Your task to perform on an android device: Check the news Image 0: 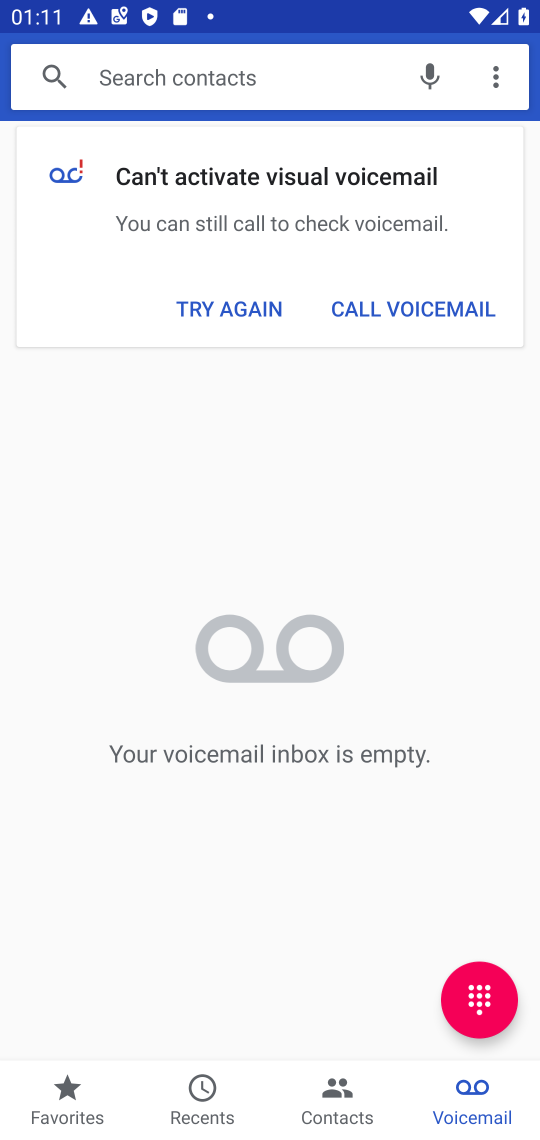
Step 0: press home button
Your task to perform on an android device: Check the news Image 1: 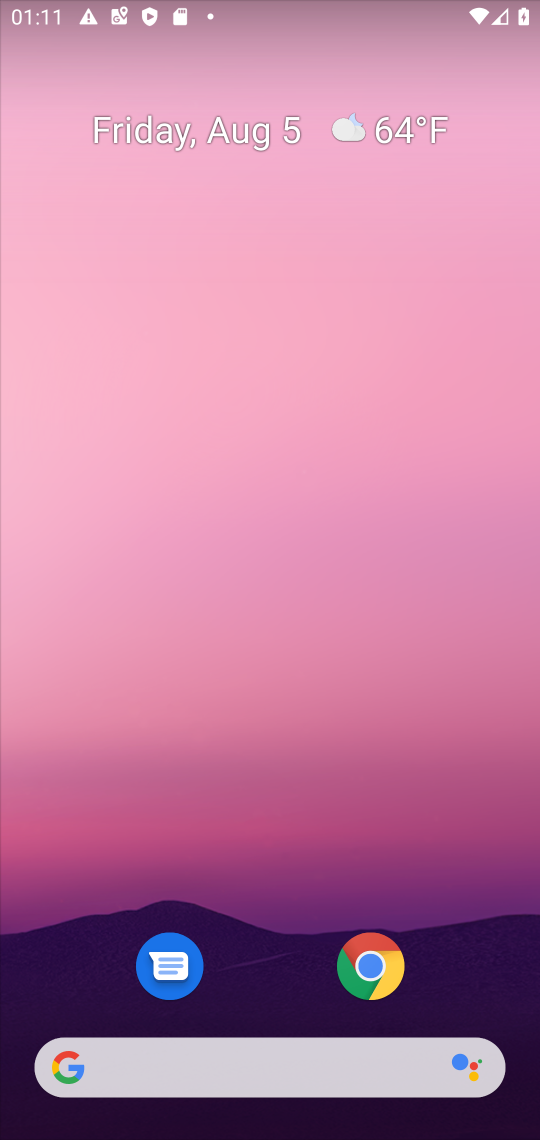
Step 1: click (198, 1068)
Your task to perform on an android device: Check the news Image 2: 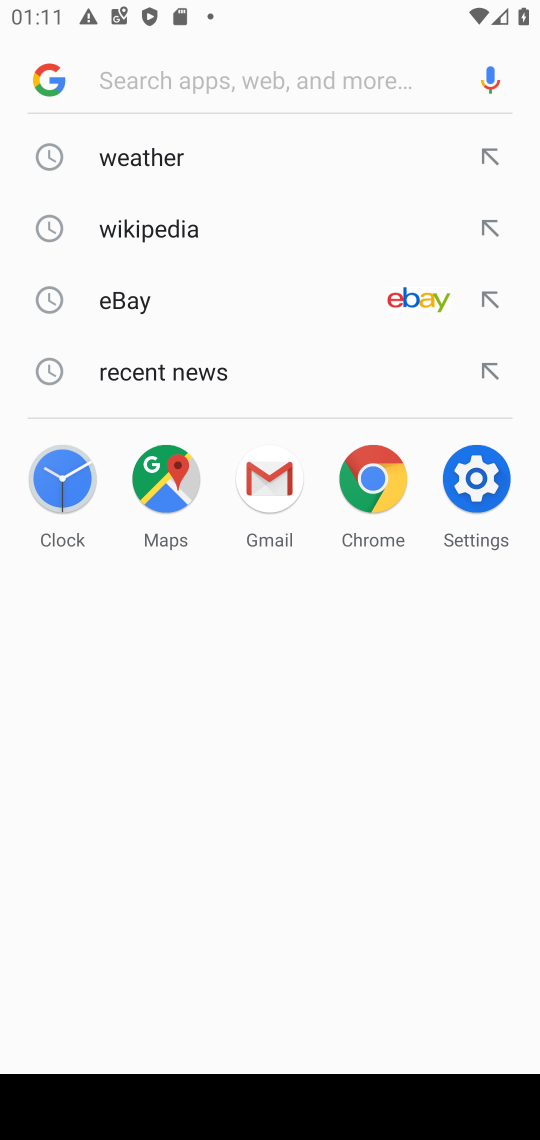
Step 2: click (177, 352)
Your task to perform on an android device: Check the news Image 3: 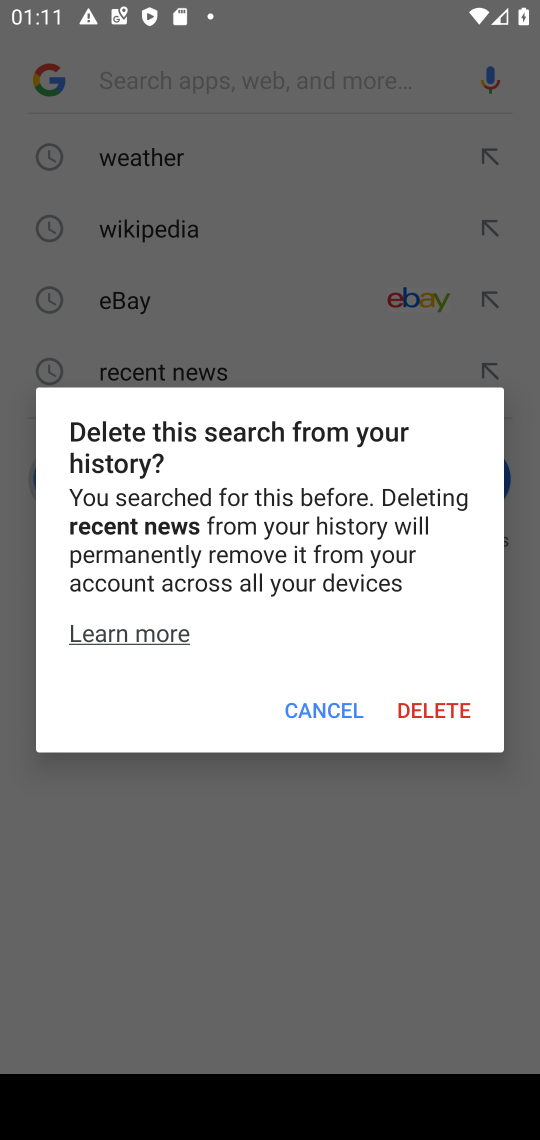
Step 3: click (338, 710)
Your task to perform on an android device: Check the news Image 4: 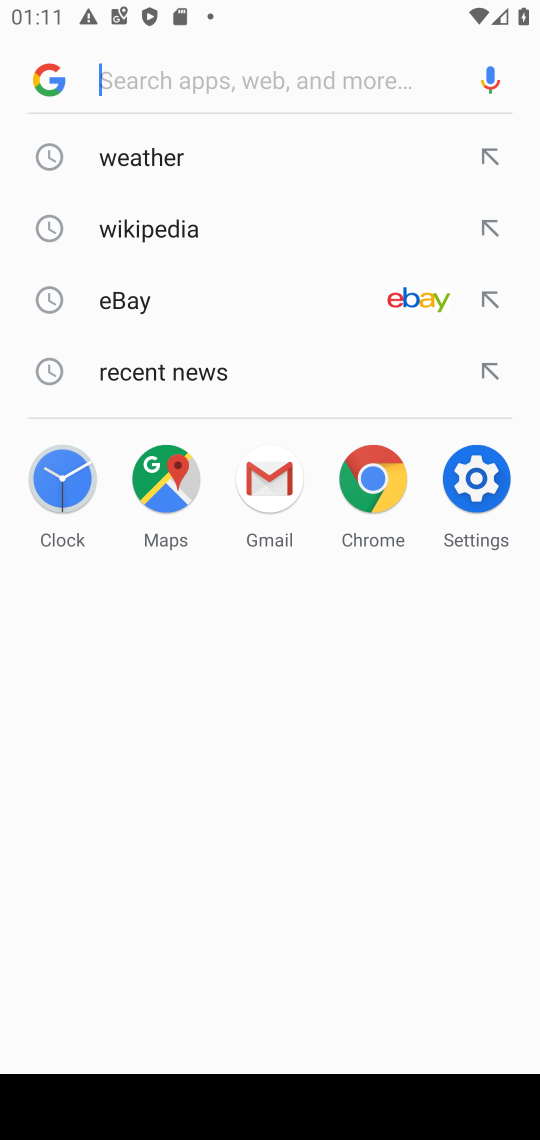
Step 4: click (314, 366)
Your task to perform on an android device: Check the news Image 5: 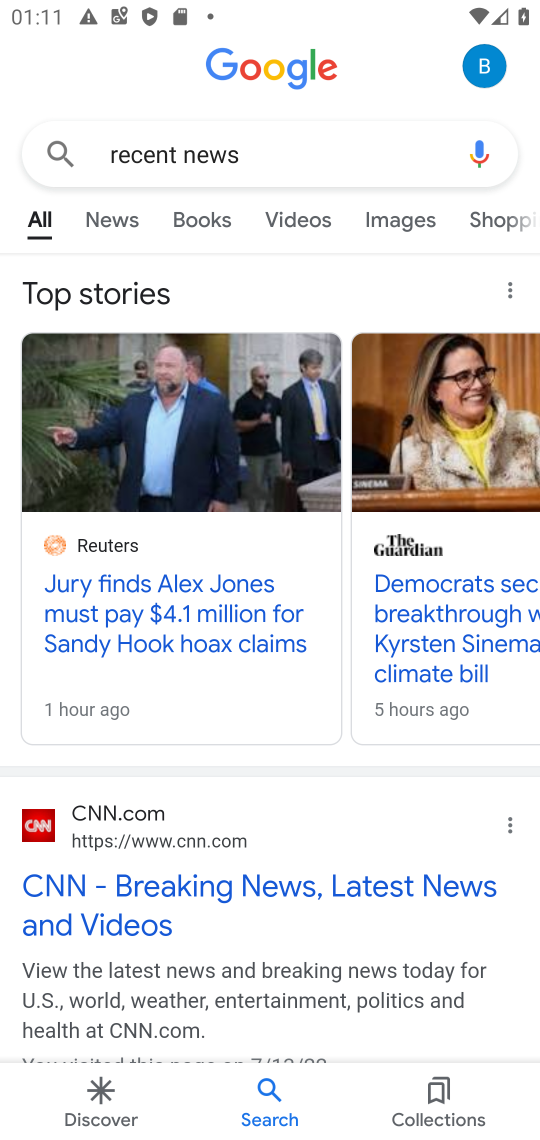
Step 5: task complete